Your task to perform on an android device: Clear the cart on amazon. Search for logitech g pro on amazon, select the first entry, add it to the cart, then select checkout. Image 0: 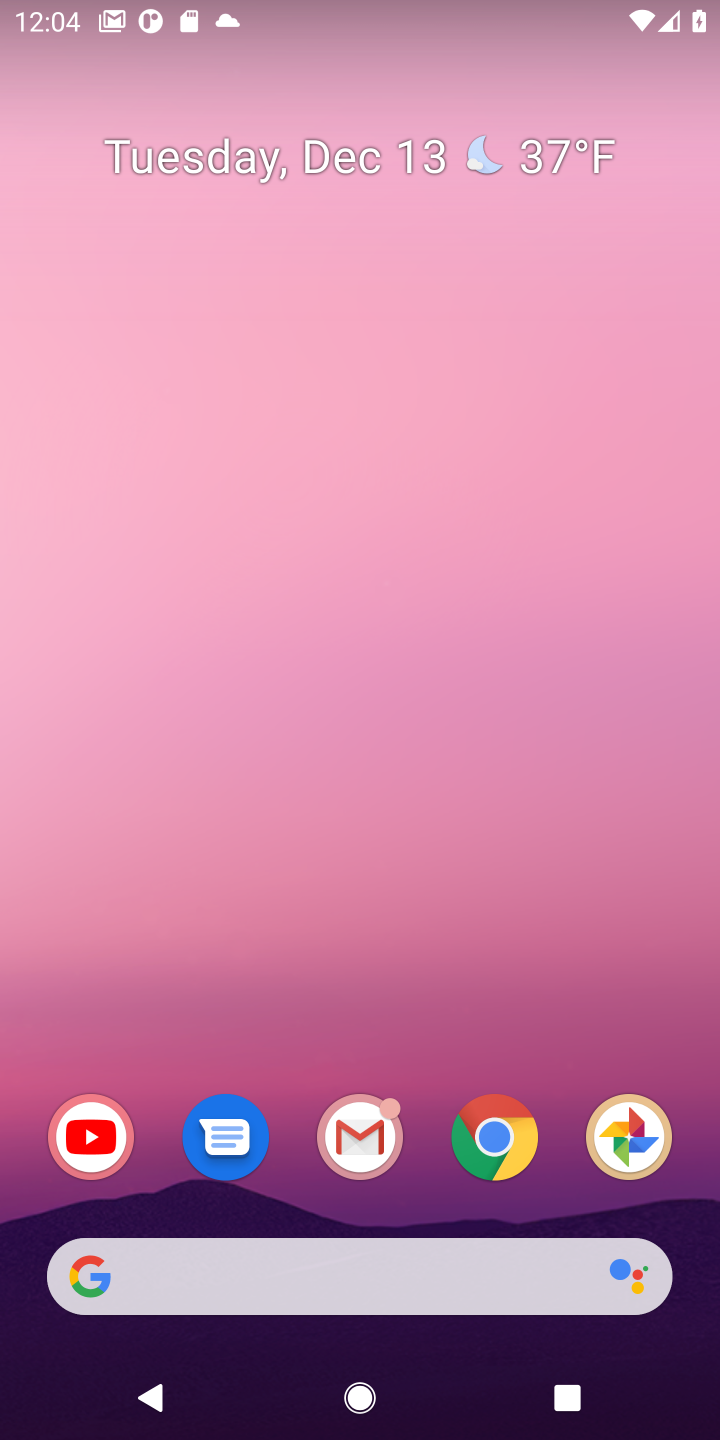
Step 0: click (476, 1157)
Your task to perform on an android device: Clear the cart on amazon. Search for logitech g pro on amazon, select the first entry, add it to the cart, then select checkout. Image 1: 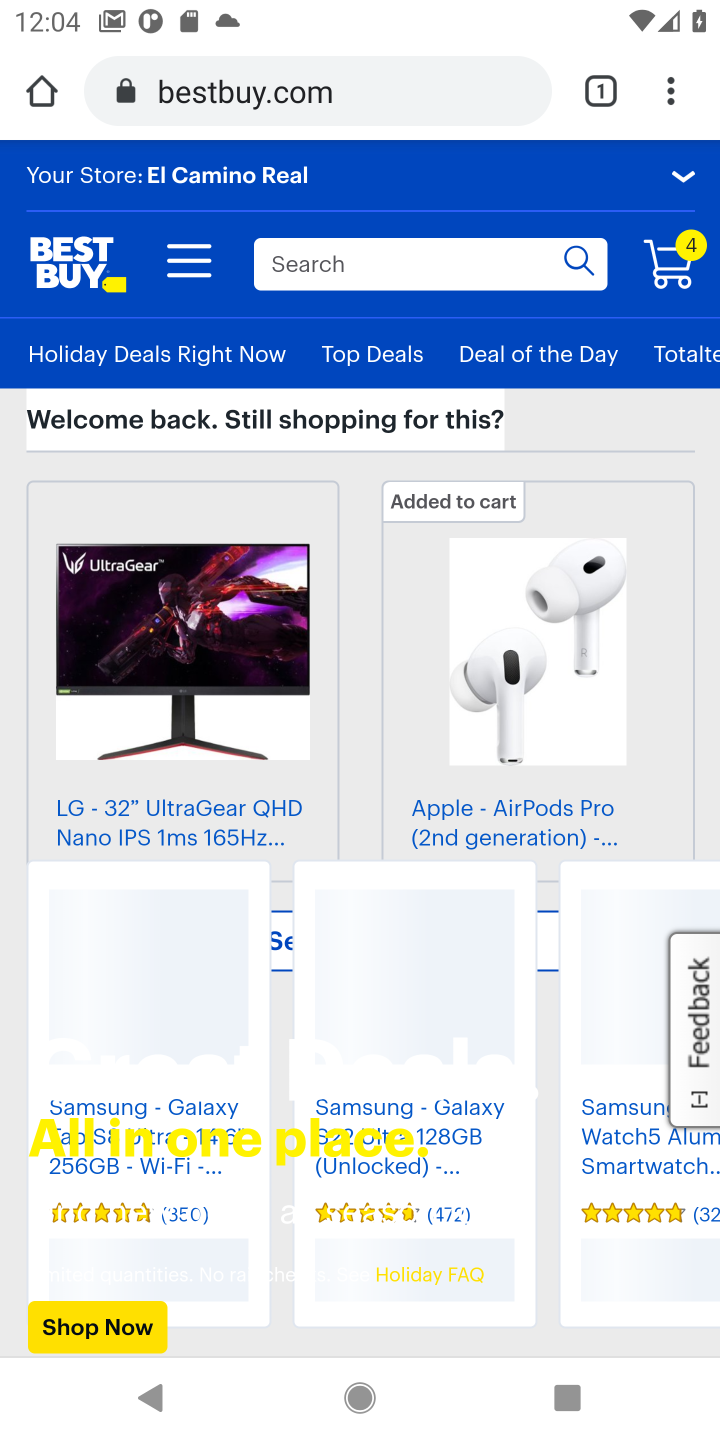
Step 1: click (416, 271)
Your task to perform on an android device: Clear the cart on amazon. Search for logitech g pro on amazon, select the first entry, add it to the cart, then select checkout. Image 2: 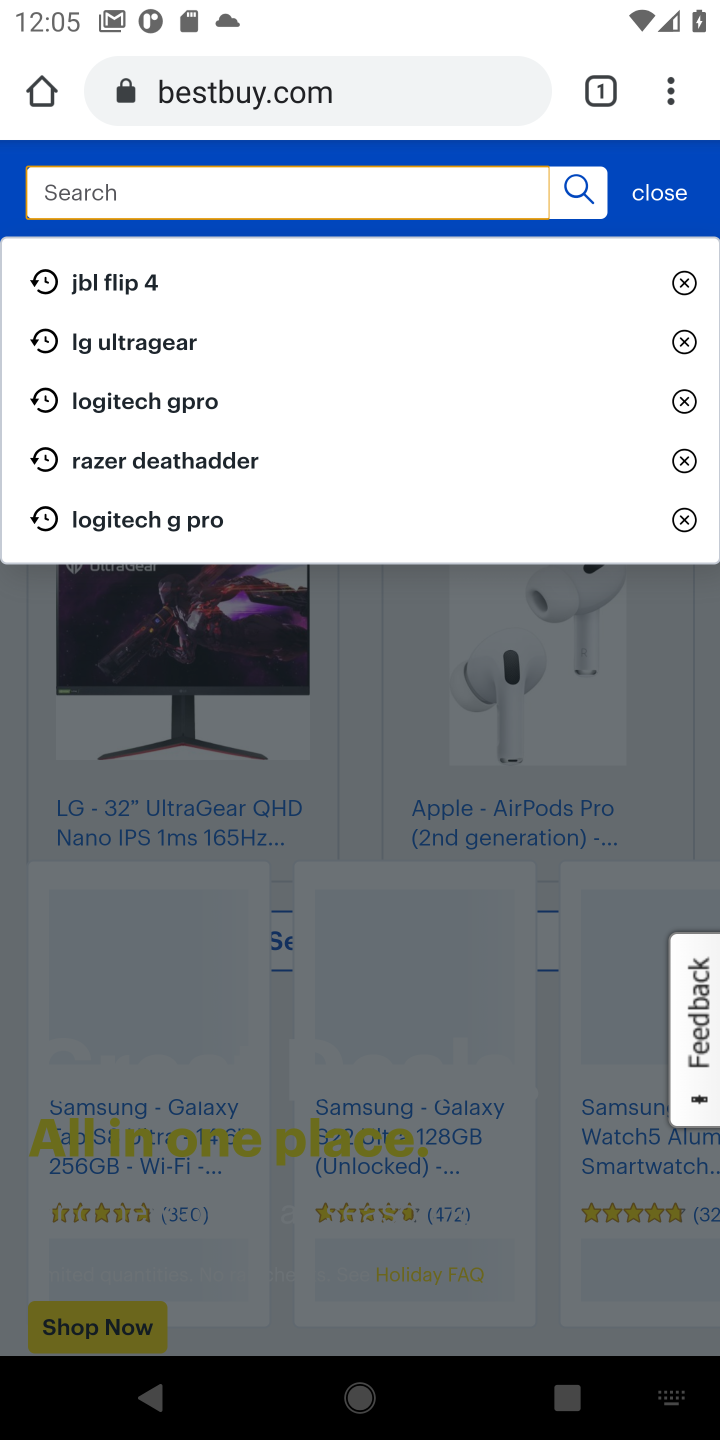
Step 2: type "logitech g pro"
Your task to perform on an android device: Clear the cart on amazon. Search for logitech g pro on amazon, select the first entry, add it to the cart, then select checkout. Image 3: 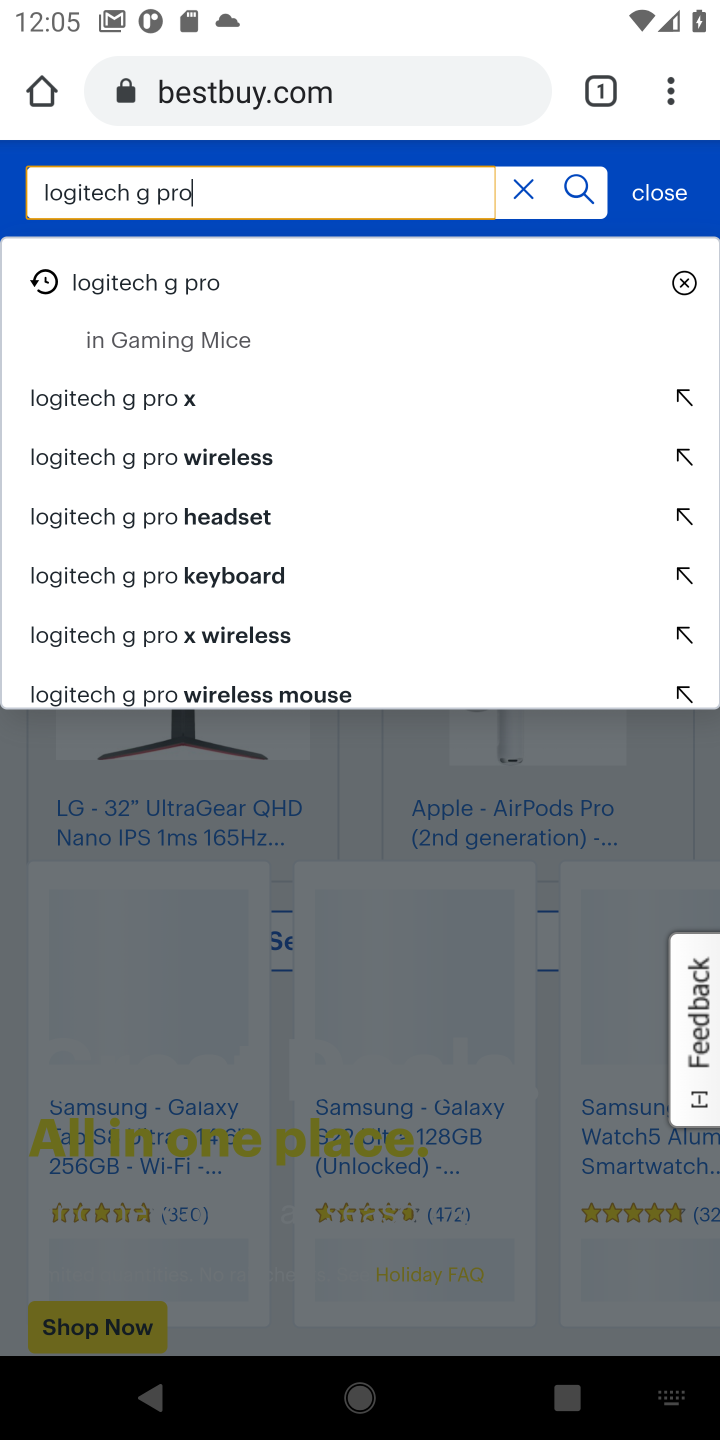
Step 3: click (157, 276)
Your task to perform on an android device: Clear the cart on amazon. Search for logitech g pro on amazon, select the first entry, add it to the cart, then select checkout. Image 4: 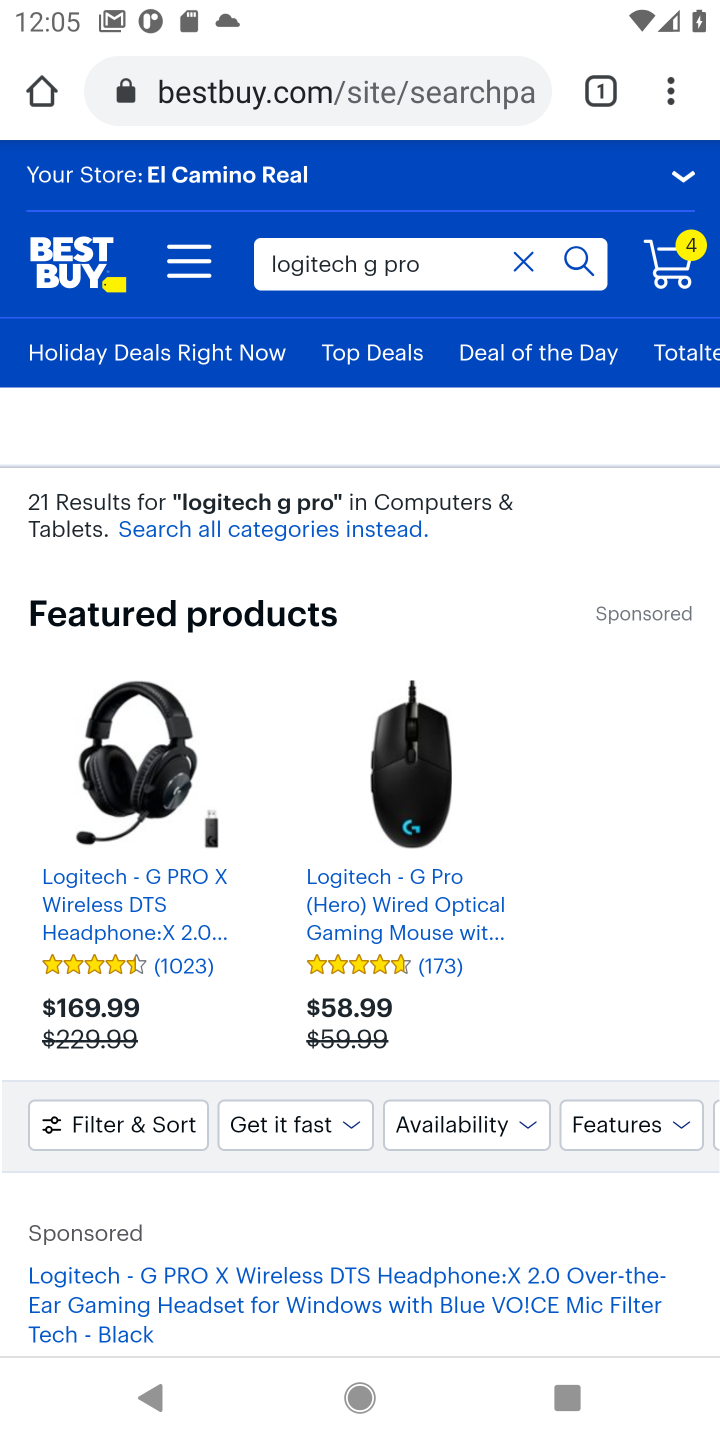
Step 4: click (203, 856)
Your task to perform on an android device: Clear the cart on amazon. Search for logitech g pro on amazon, select the first entry, add it to the cart, then select checkout. Image 5: 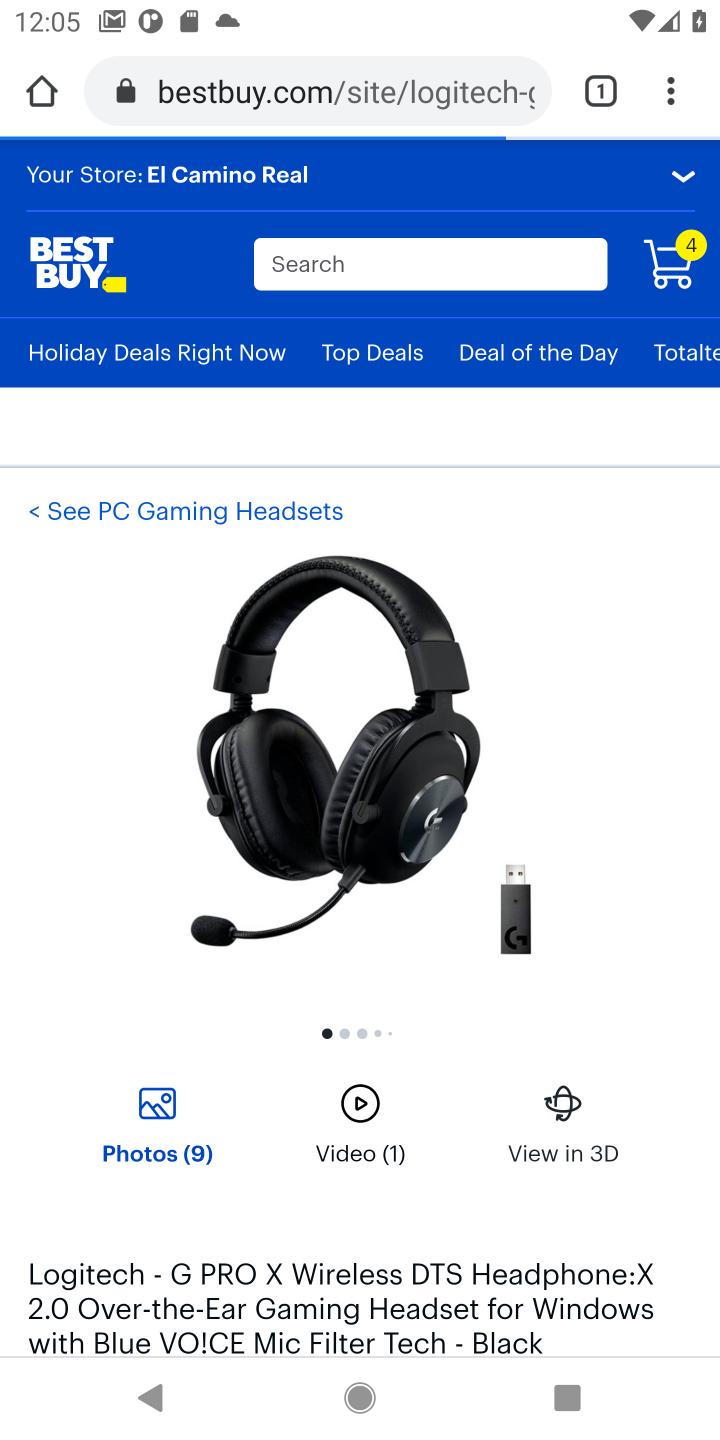
Step 5: drag from (581, 1172) to (604, 536)
Your task to perform on an android device: Clear the cart on amazon. Search for logitech g pro on amazon, select the first entry, add it to the cart, then select checkout. Image 6: 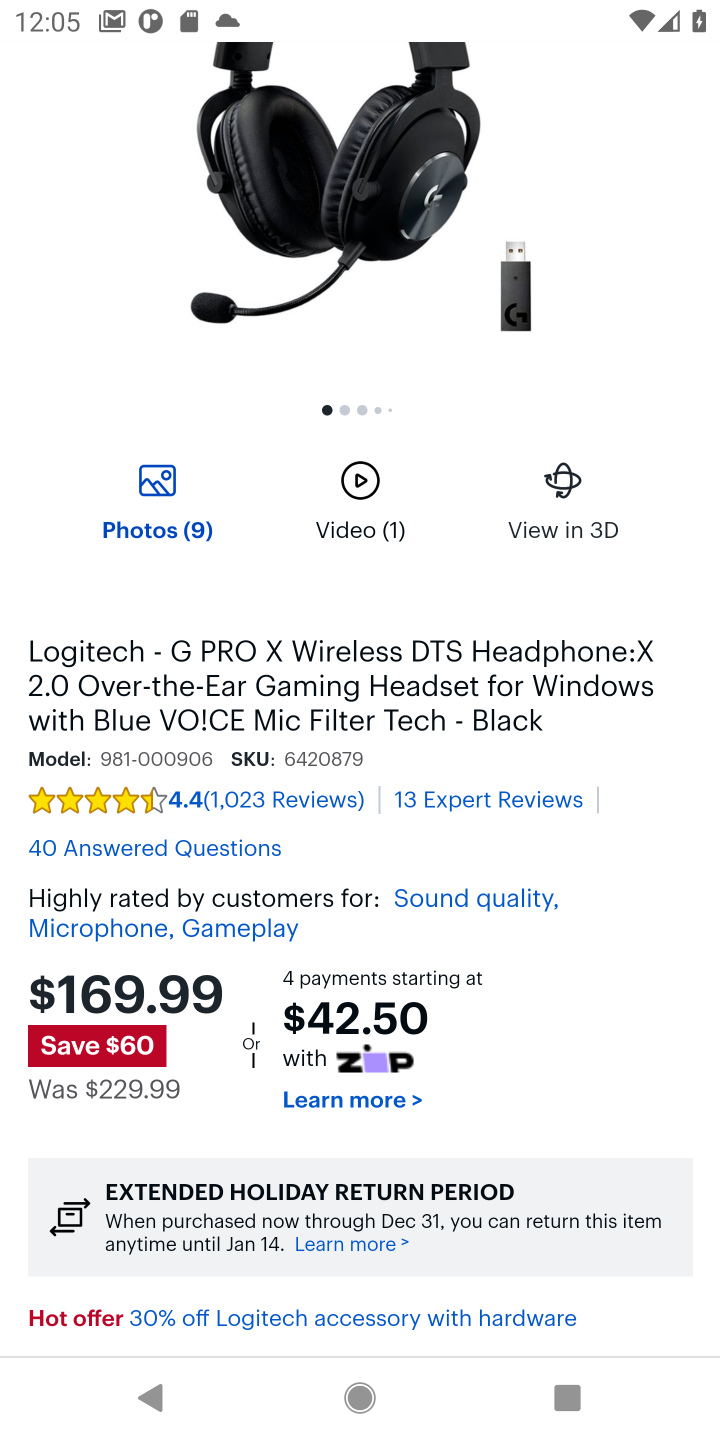
Step 6: drag from (578, 1083) to (477, 411)
Your task to perform on an android device: Clear the cart on amazon. Search for logitech g pro on amazon, select the first entry, add it to the cart, then select checkout. Image 7: 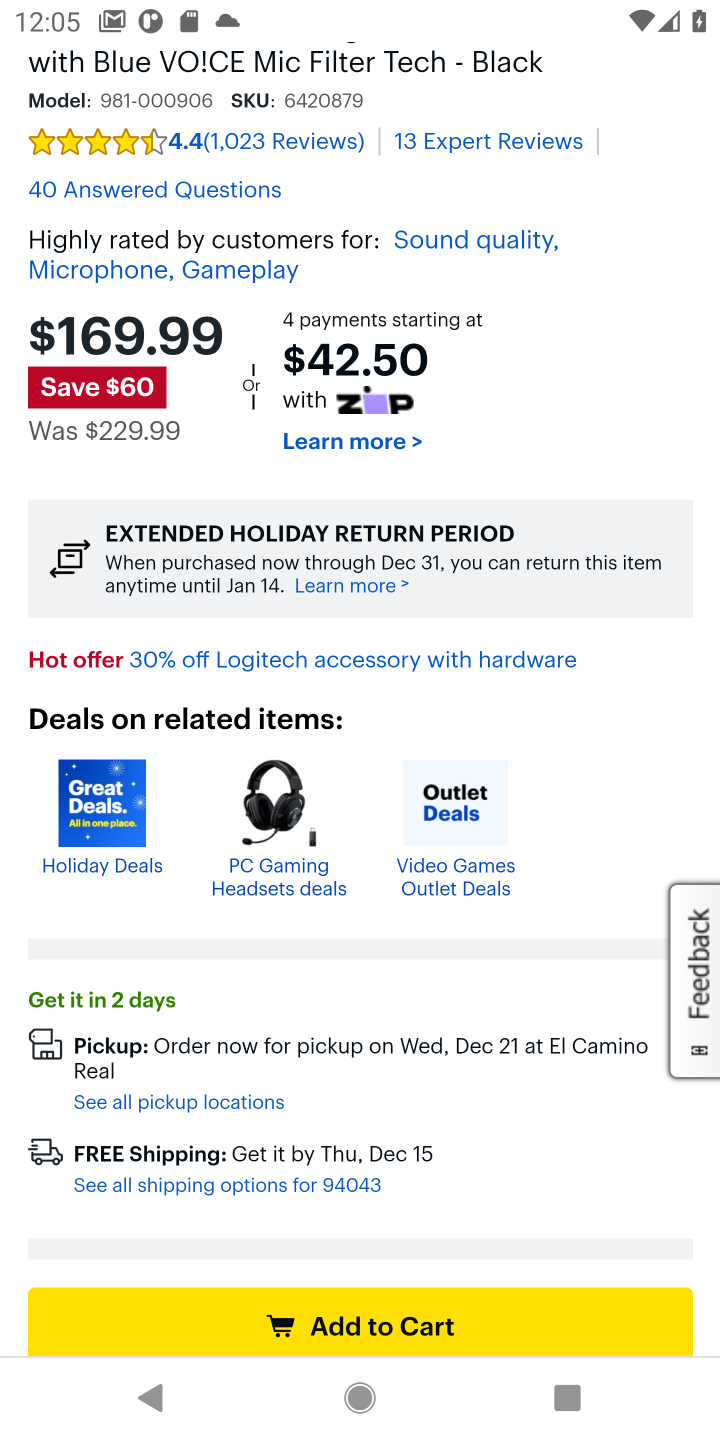
Step 7: click (332, 1306)
Your task to perform on an android device: Clear the cart on amazon. Search for logitech g pro on amazon, select the first entry, add it to the cart, then select checkout. Image 8: 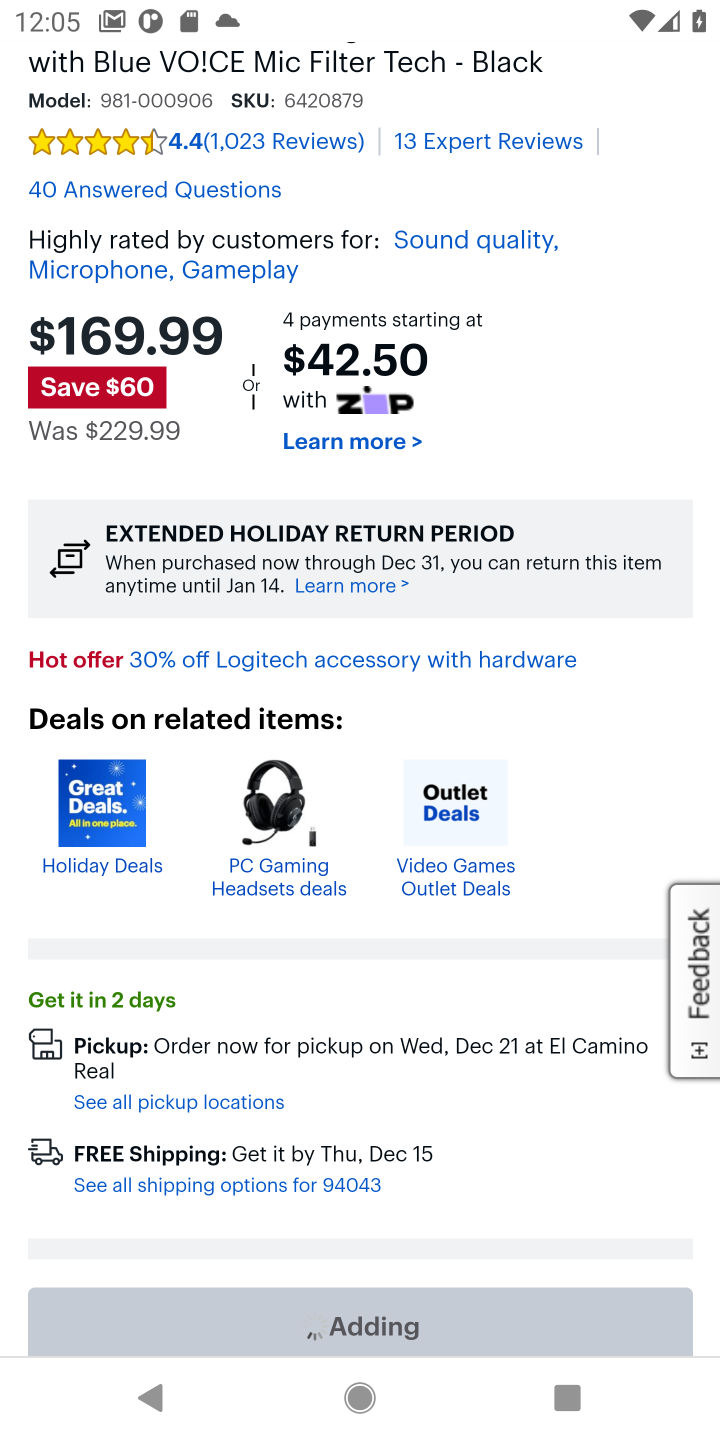
Step 8: task complete